Your task to perform on an android device: change keyboard looks Image 0: 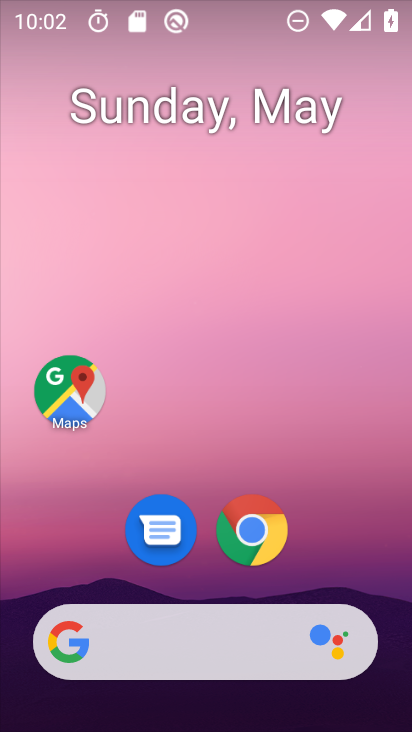
Step 0: drag from (260, 680) to (149, 240)
Your task to perform on an android device: change keyboard looks Image 1: 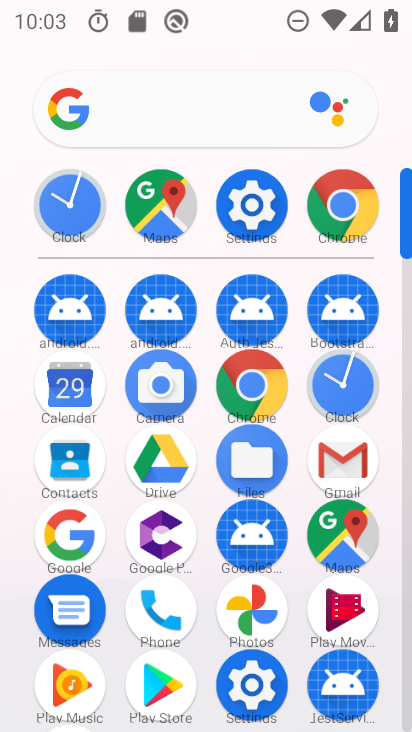
Step 1: click (256, 220)
Your task to perform on an android device: change keyboard looks Image 2: 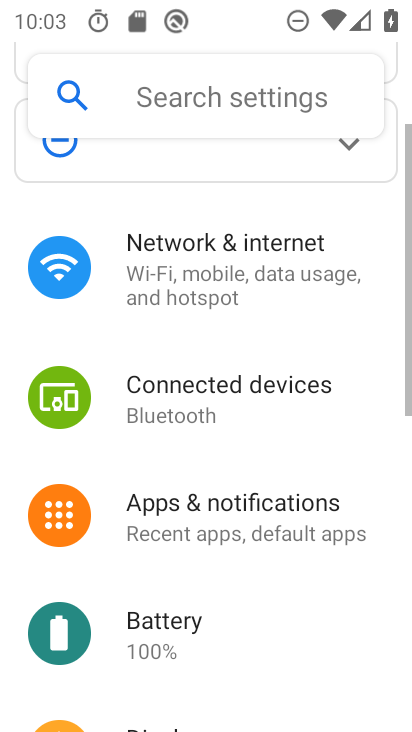
Step 2: click (202, 92)
Your task to perform on an android device: change keyboard looks Image 3: 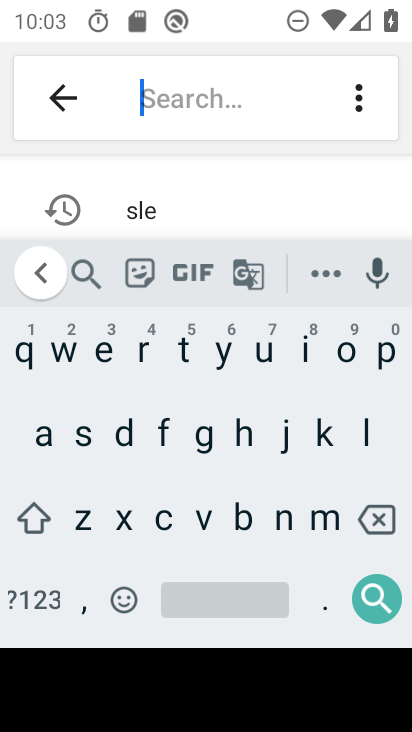
Step 3: click (321, 435)
Your task to perform on an android device: change keyboard looks Image 4: 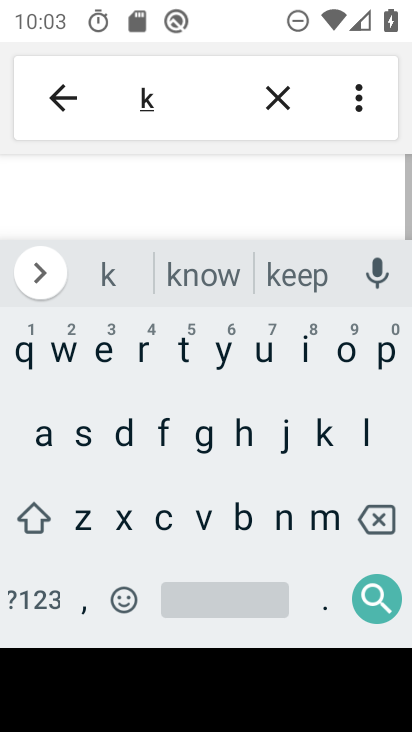
Step 4: click (102, 347)
Your task to perform on an android device: change keyboard looks Image 5: 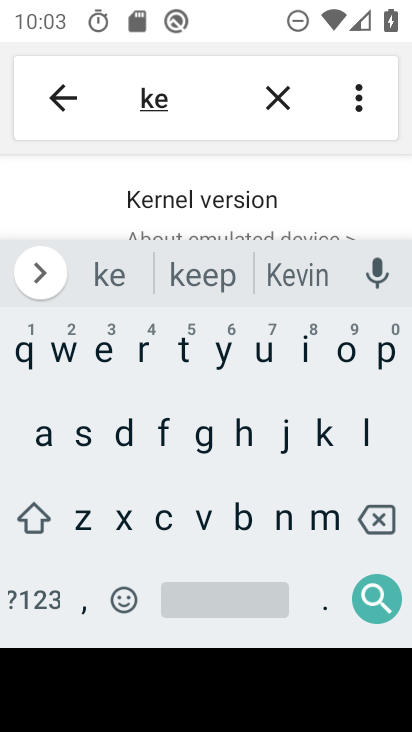
Step 5: click (222, 350)
Your task to perform on an android device: change keyboard looks Image 6: 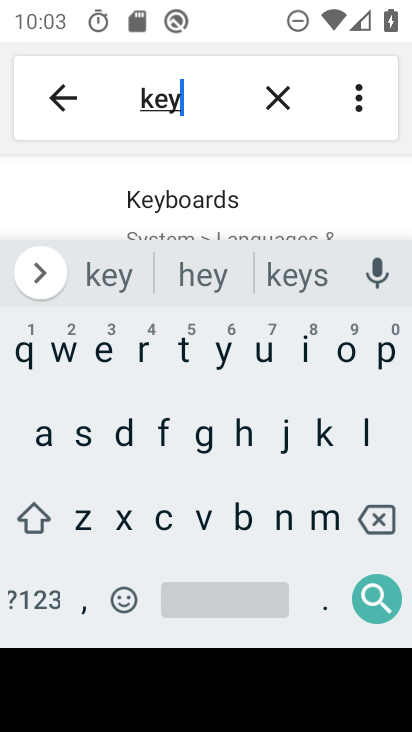
Step 6: click (177, 213)
Your task to perform on an android device: change keyboard looks Image 7: 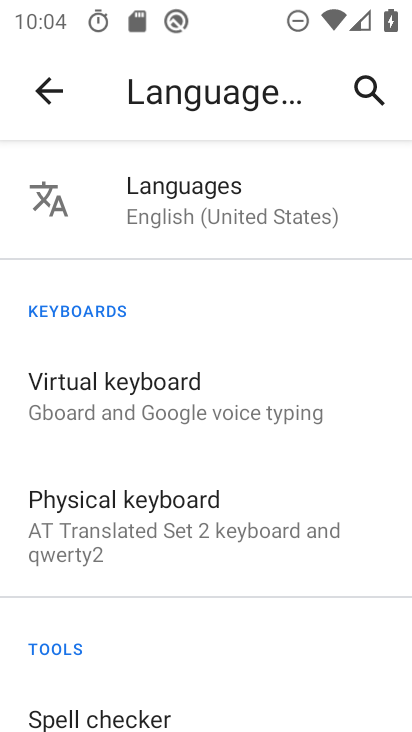
Step 7: task complete